Your task to perform on an android device: See recent photos Image 0: 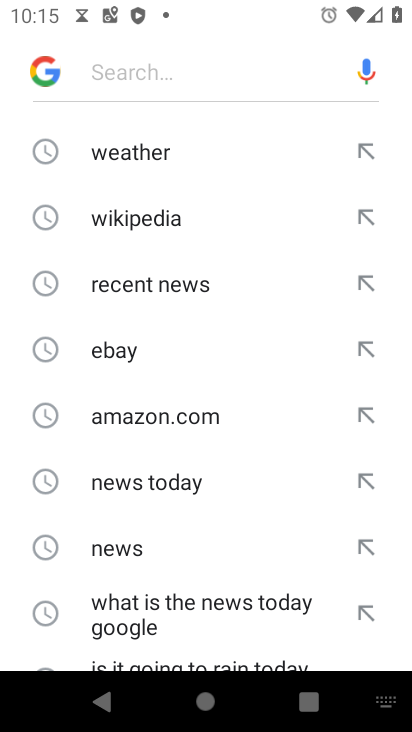
Step 0: press home button
Your task to perform on an android device: See recent photos Image 1: 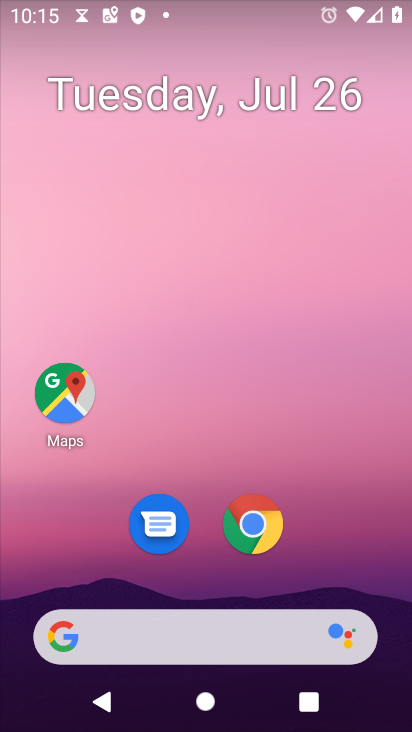
Step 1: drag from (202, 642) to (318, 113)
Your task to perform on an android device: See recent photos Image 2: 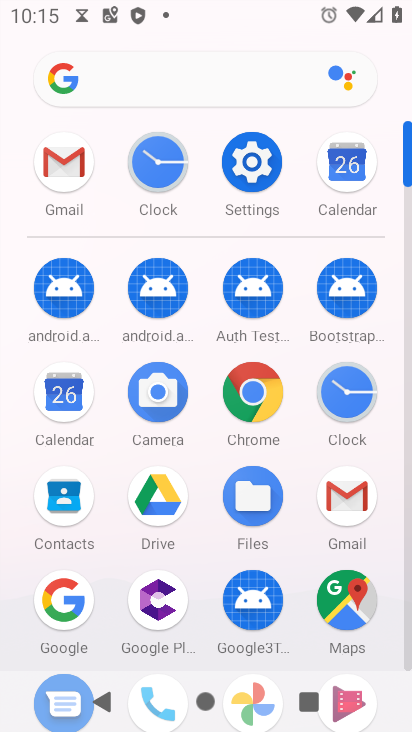
Step 2: drag from (195, 541) to (335, 122)
Your task to perform on an android device: See recent photos Image 3: 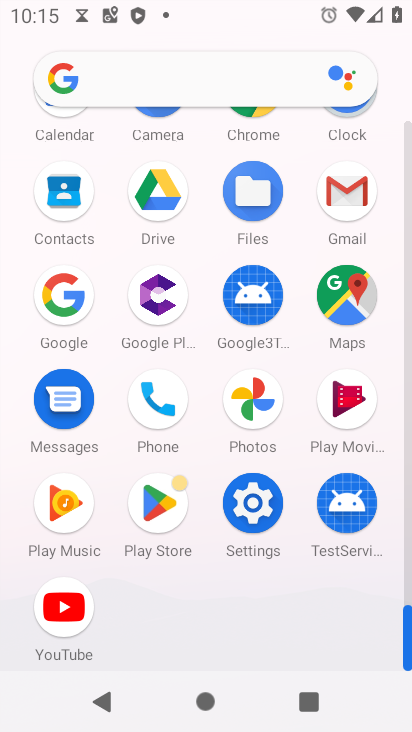
Step 3: click (255, 398)
Your task to perform on an android device: See recent photos Image 4: 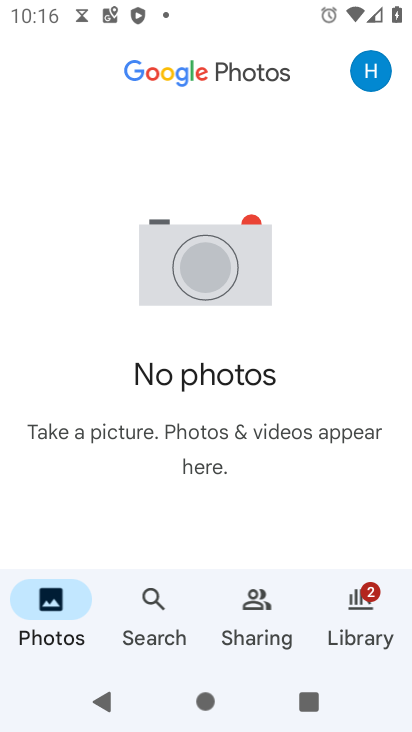
Step 4: click (374, 627)
Your task to perform on an android device: See recent photos Image 5: 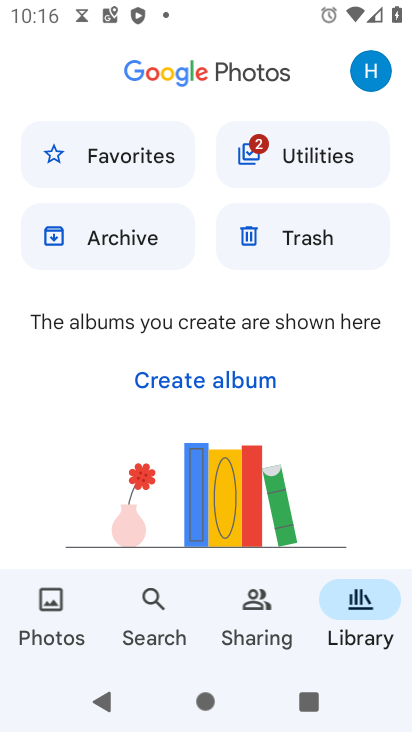
Step 5: task complete